Your task to perform on an android device: snooze an email in the gmail app Image 0: 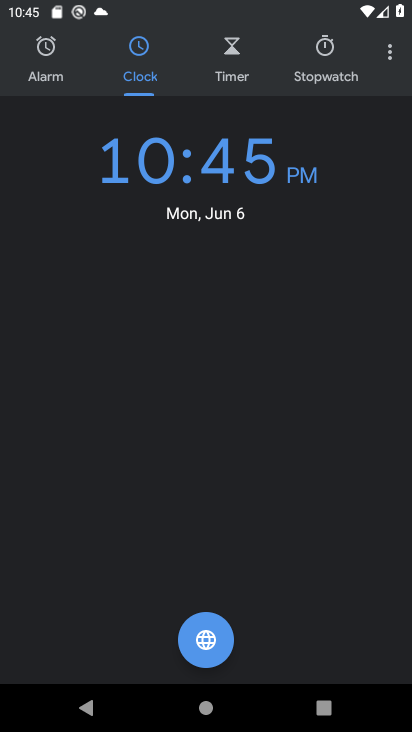
Step 0: press home button
Your task to perform on an android device: snooze an email in the gmail app Image 1: 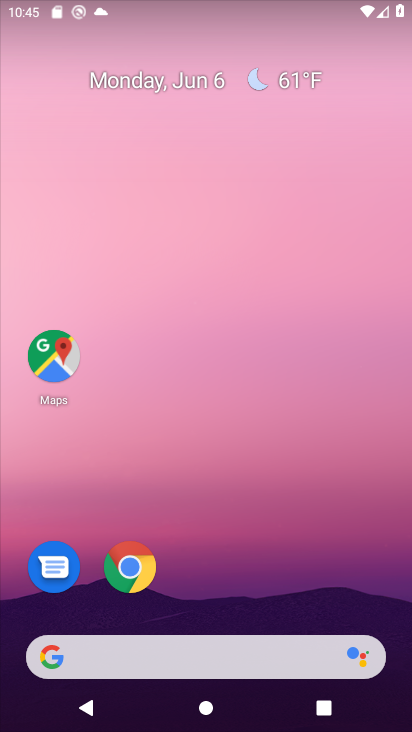
Step 1: drag from (230, 683) to (230, 53)
Your task to perform on an android device: snooze an email in the gmail app Image 2: 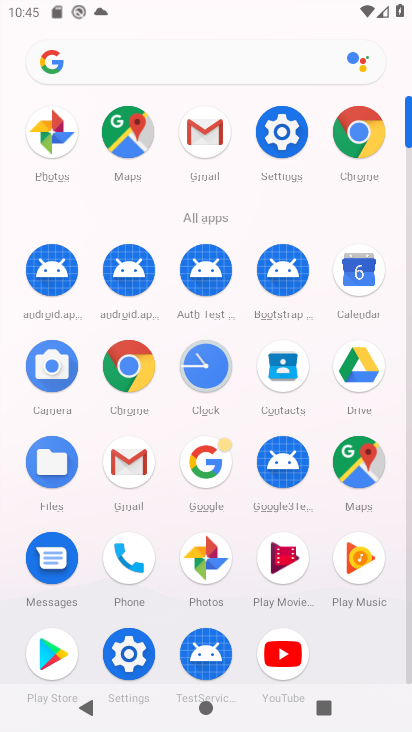
Step 2: click (119, 468)
Your task to perform on an android device: snooze an email in the gmail app Image 3: 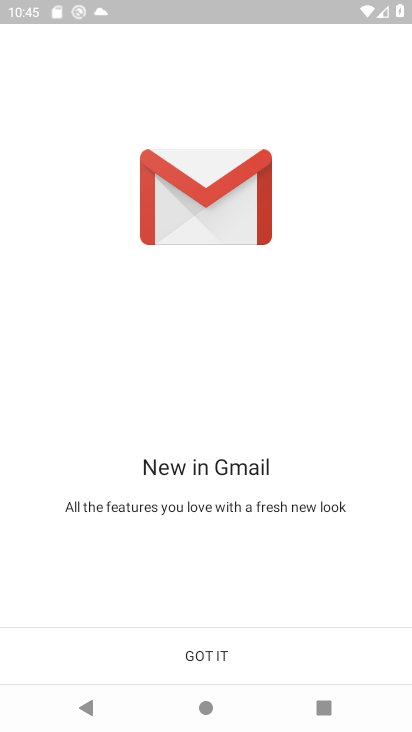
Step 3: click (200, 655)
Your task to perform on an android device: snooze an email in the gmail app Image 4: 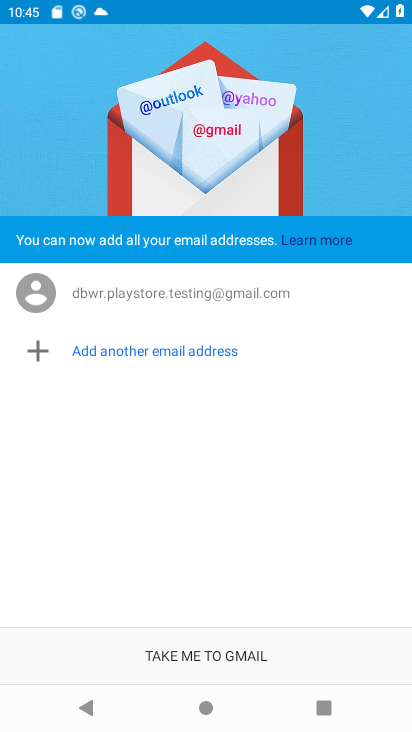
Step 4: click (164, 651)
Your task to perform on an android device: snooze an email in the gmail app Image 5: 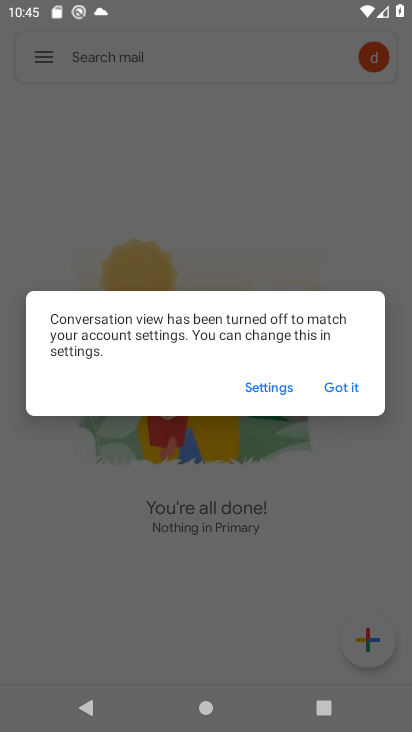
Step 5: click (340, 385)
Your task to perform on an android device: snooze an email in the gmail app Image 6: 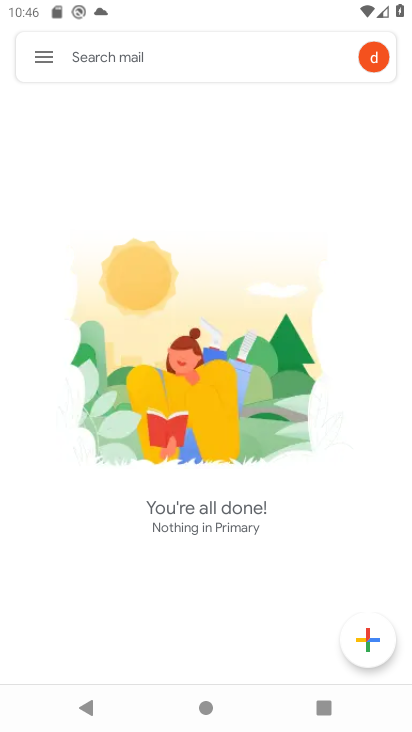
Step 6: task complete